Your task to perform on an android device: check battery use Image 0: 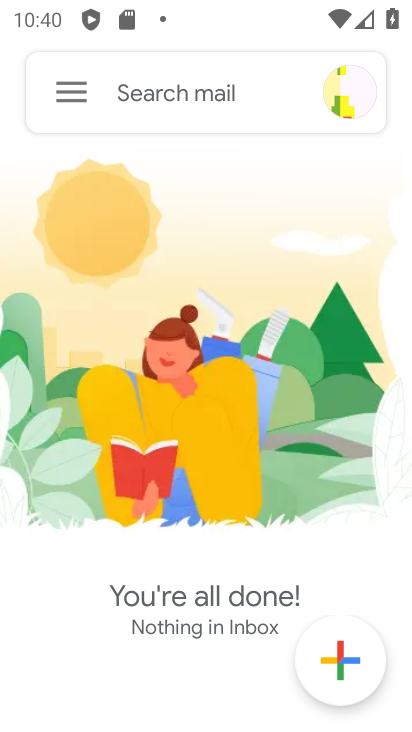
Step 0: press home button
Your task to perform on an android device: check battery use Image 1: 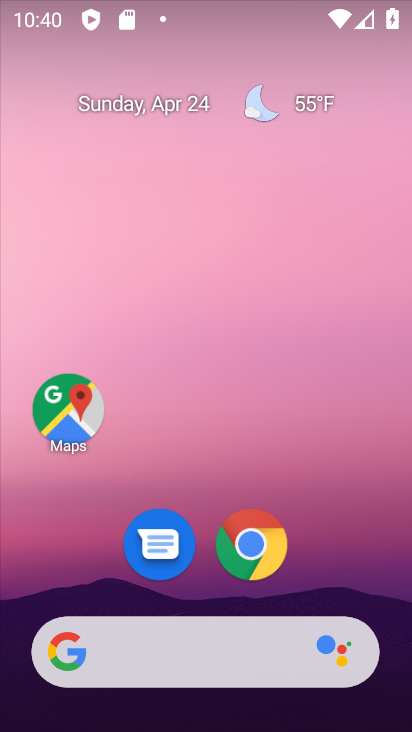
Step 1: drag from (333, 542) to (266, 198)
Your task to perform on an android device: check battery use Image 2: 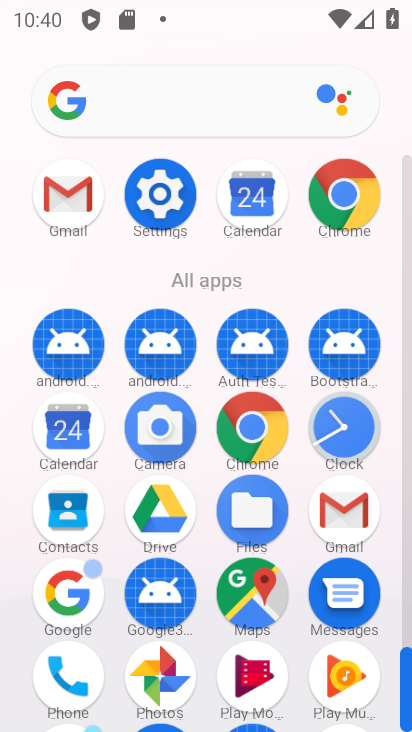
Step 2: click (171, 195)
Your task to perform on an android device: check battery use Image 3: 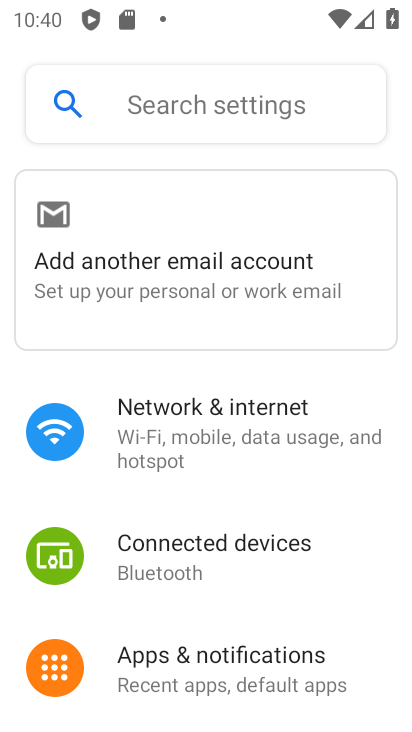
Step 3: drag from (315, 646) to (304, 171)
Your task to perform on an android device: check battery use Image 4: 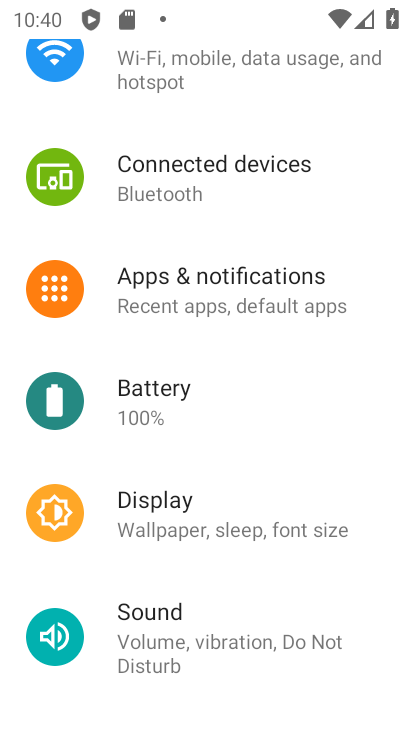
Step 4: click (177, 388)
Your task to perform on an android device: check battery use Image 5: 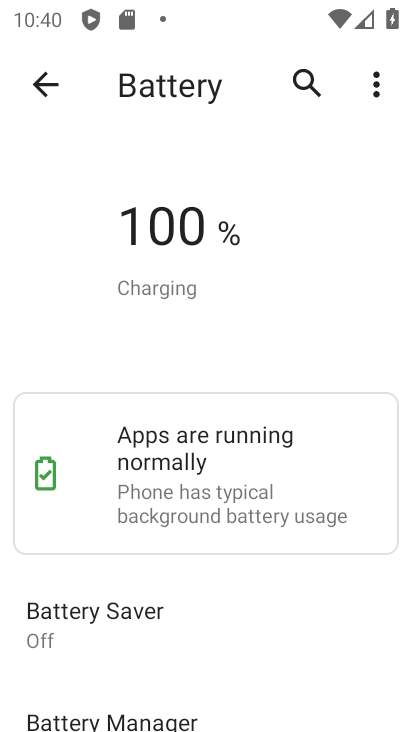
Step 5: click (185, 483)
Your task to perform on an android device: check battery use Image 6: 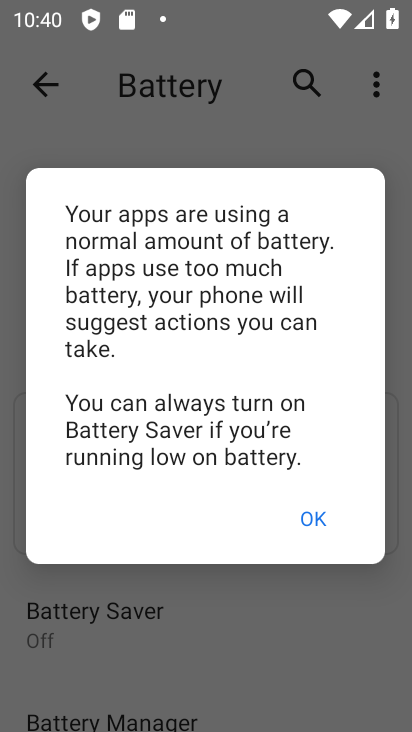
Step 6: click (315, 513)
Your task to perform on an android device: check battery use Image 7: 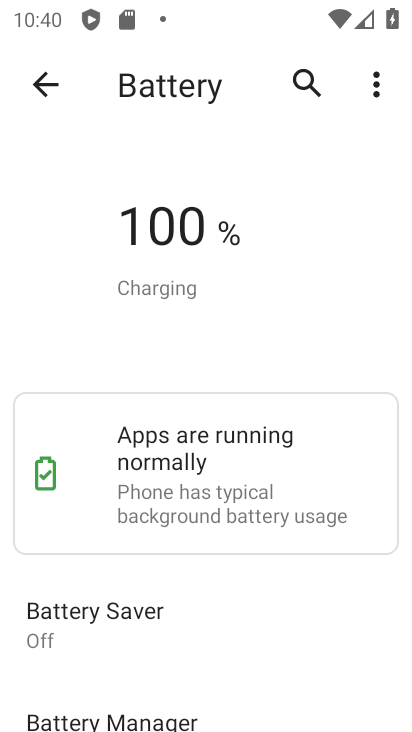
Step 7: drag from (279, 592) to (284, 239)
Your task to perform on an android device: check battery use Image 8: 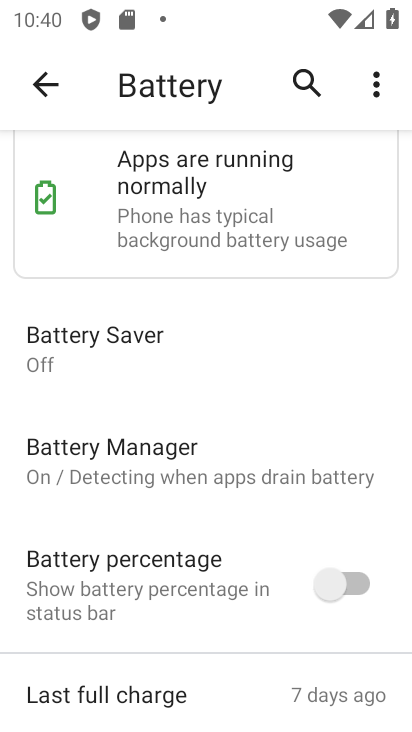
Step 8: drag from (249, 606) to (249, 345)
Your task to perform on an android device: check battery use Image 9: 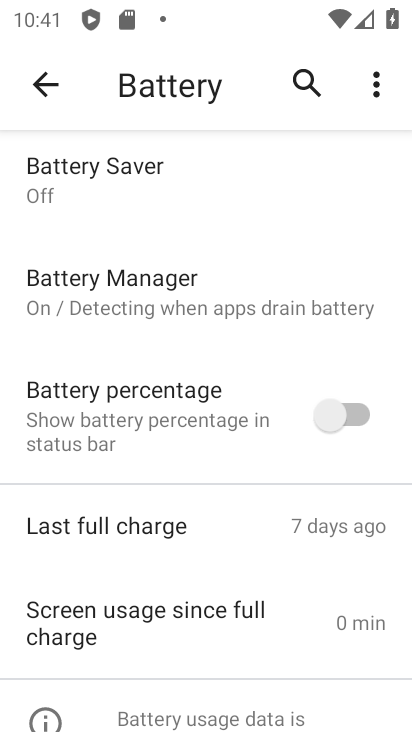
Step 9: click (182, 300)
Your task to perform on an android device: check battery use Image 10: 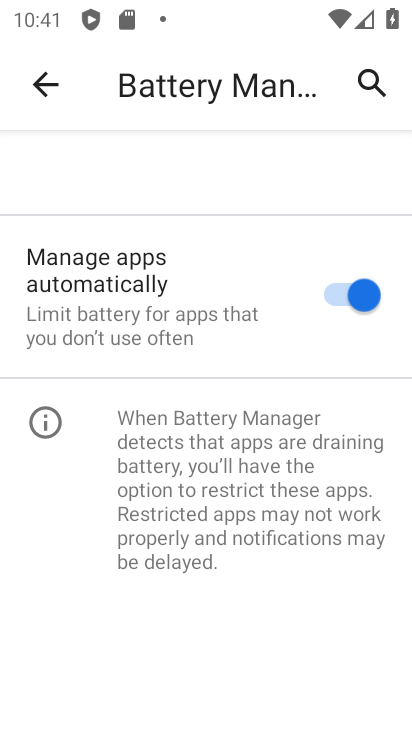
Step 10: task complete